Your task to perform on an android device: Turn off the flashlight Image 0: 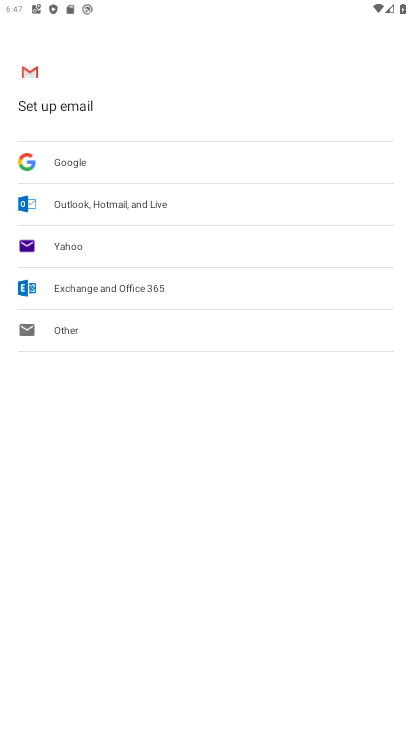
Step 0: press home button
Your task to perform on an android device: Turn off the flashlight Image 1: 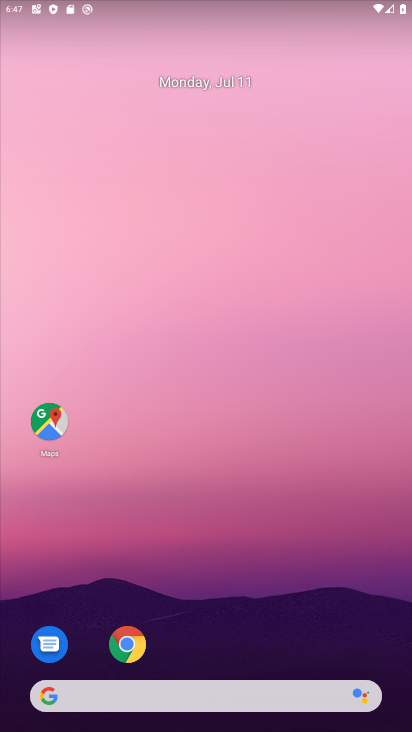
Step 1: task complete